Your task to perform on an android device: turn on showing notifications on the lock screen Image 0: 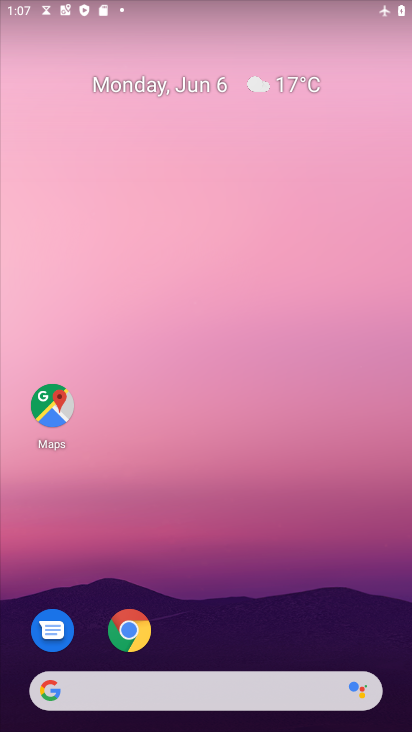
Step 0: drag from (238, 571) to (136, 280)
Your task to perform on an android device: turn on showing notifications on the lock screen Image 1: 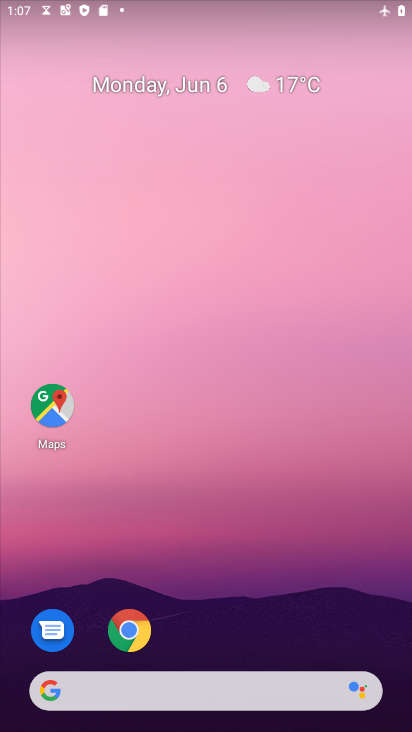
Step 1: drag from (250, 689) to (184, 229)
Your task to perform on an android device: turn on showing notifications on the lock screen Image 2: 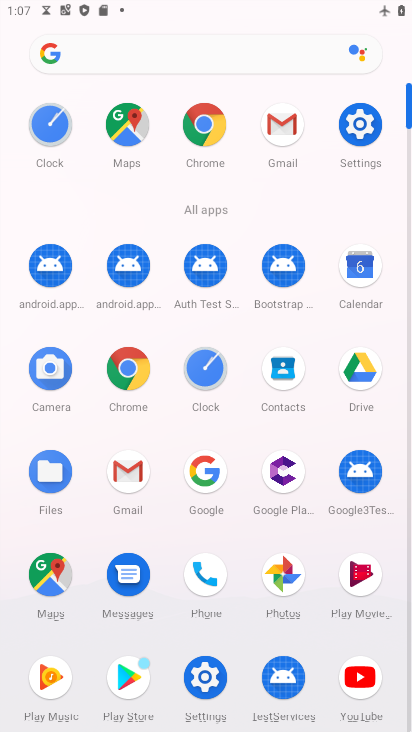
Step 2: click (361, 122)
Your task to perform on an android device: turn on showing notifications on the lock screen Image 3: 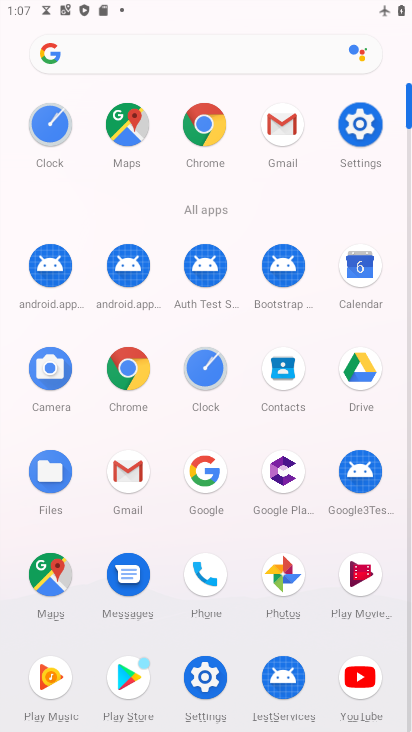
Step 3: click (361, 122)
Your task to perform on an android device: turn on showing notifications on the lock screen Image 4: 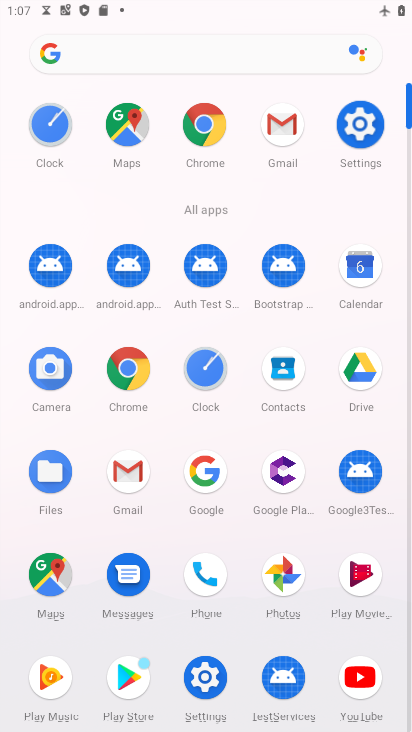
Step 4: click (361, 122)
Your task to perform on an android device: turn on showing notifications on the lock screen Image 5: 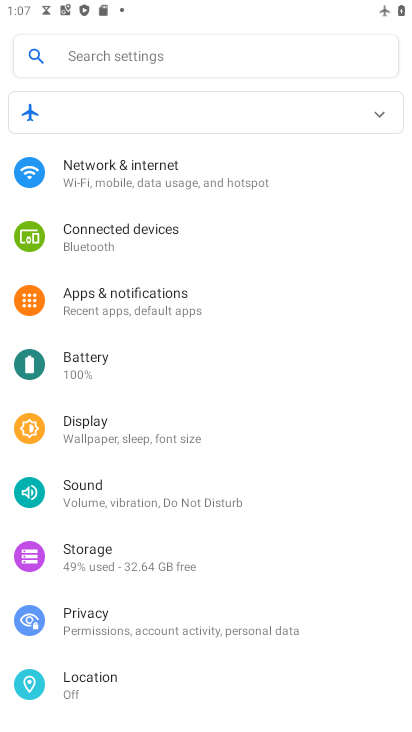
Step 5: click (119, 292)
Your task to perform on an android device: turn on showing notifications on the lock screen Image 6: 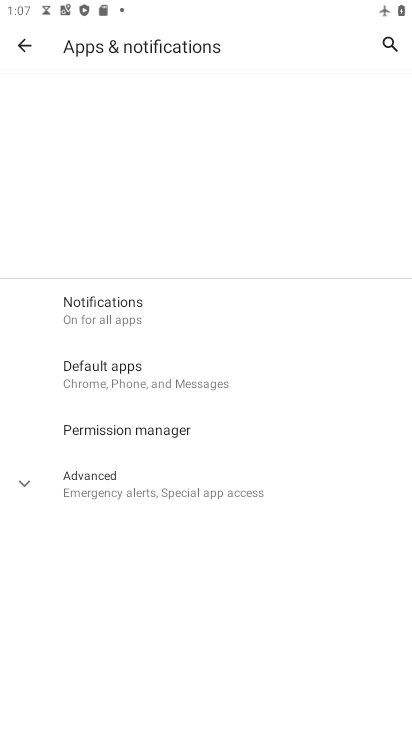
Step 6: click (101, 296)
Your task to perform on an android device: turn on showing notifications on the lock screen Image 7: 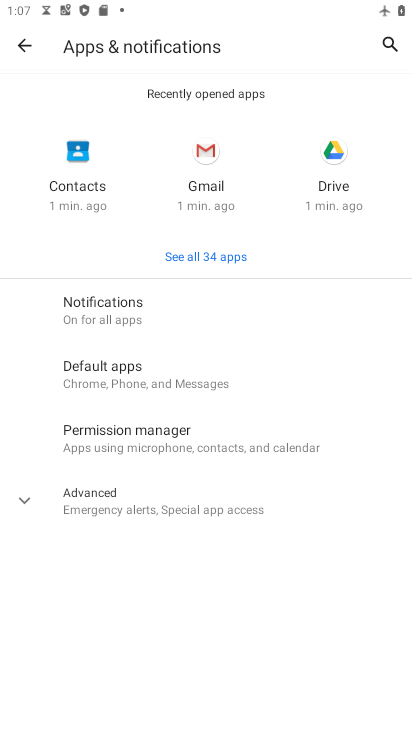
Step 7: click (111, 317)
Your task to perform on an android device: turn on showing notifications on the lock screen Image 8: 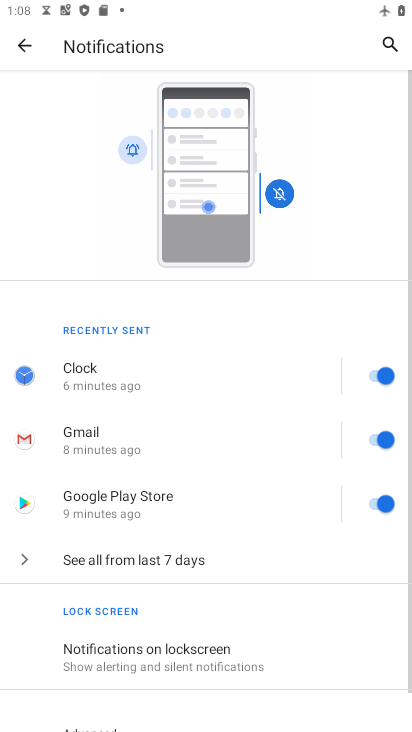
Step 8: drag from (152, 530) to (137, 247)
Your task to perform on an android device: turn on showing notifications on the lock screen Image 9: 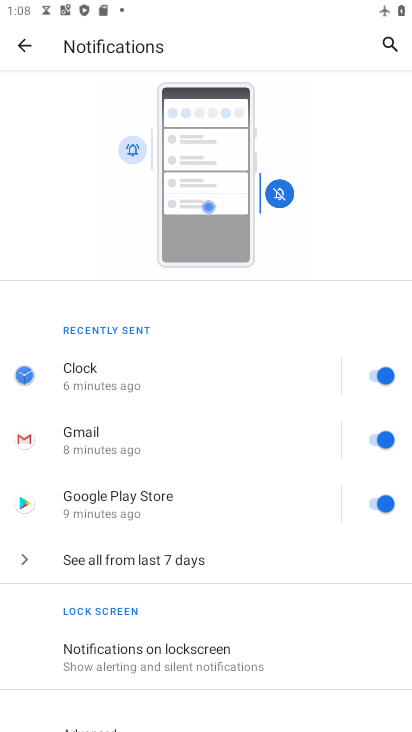
Step 9: drag from (155, 515) to (133, 330)
Your task to perform on an android device: turn on showing notifications on the lock screen Image 10: 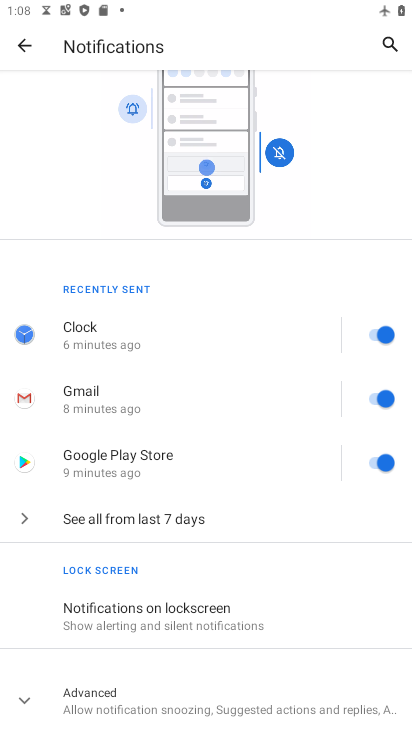
Step 10: click (109, 593)
Your task to perform on an android device: turn on showing notifications on the lock screen Image 11: 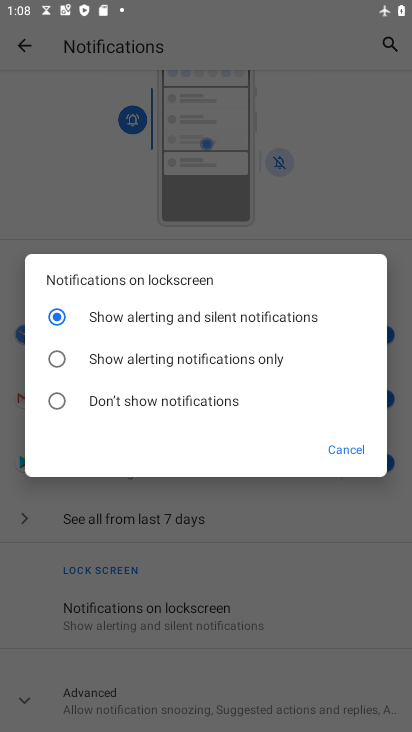
Step 11: click (358, 444)
Your task to perform on an android device: turn on showing notifications on the lock screen Image 12: 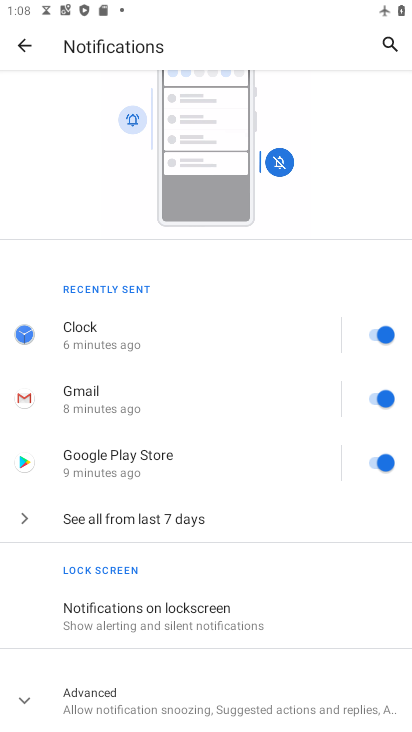
Step 12: task complete